Your task to perform on an android device: Check the weather Image 0: 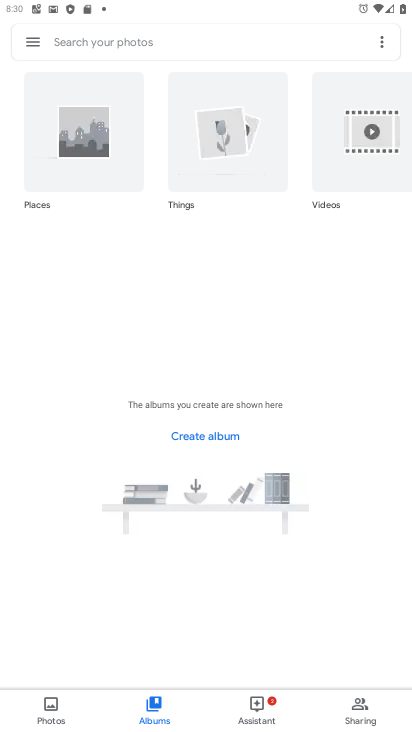
Step 0: press home button
Your task to perform on an android device: Check the weather Image 1: 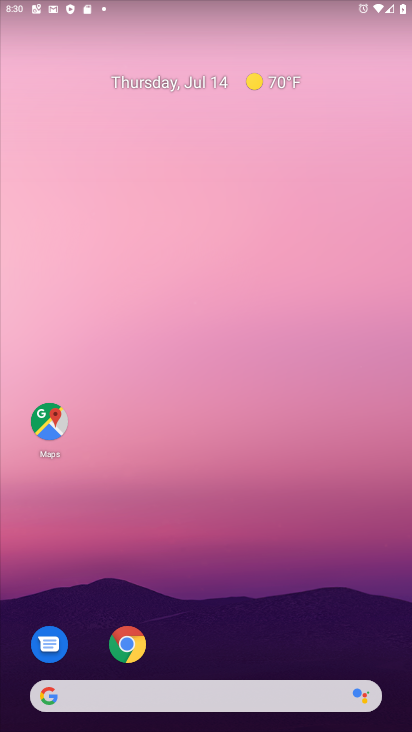
Step 1: drag from (231, 644) to (300, 276)
Your task to perform on an android device: Check the weather Image 2: 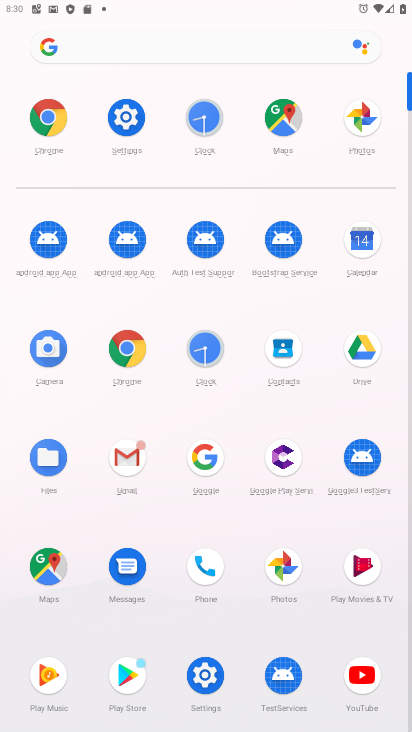
Step 2: click (29, 91)
Your task to perform on an android device: Check the weather Image 3: 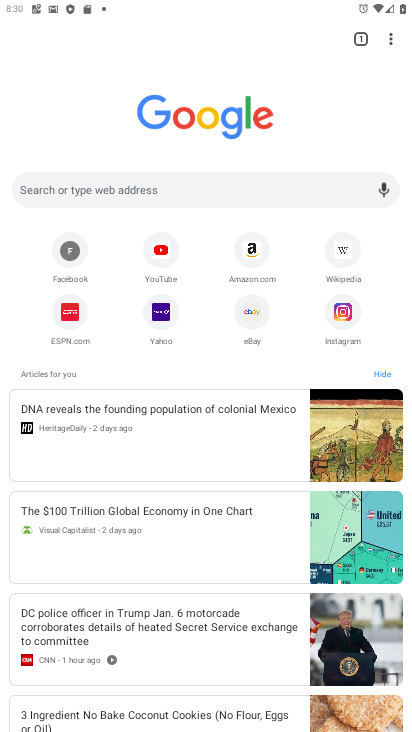
Step 3: click (58, 119)
Your task to perform on an android device: Check the weather Image 4: 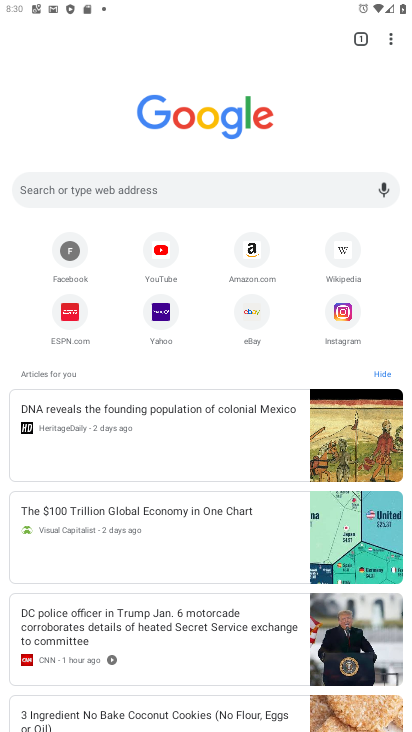
Step 4: click (119, 181)
Your task to perform on an android device: Check the weather Image 5: 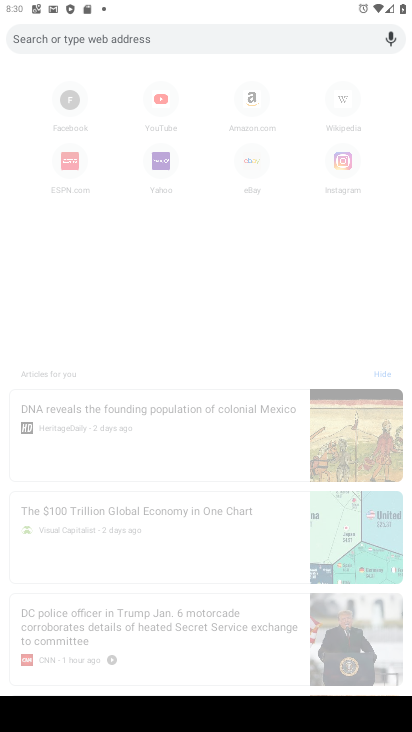
Step 5: type "Check the weather "
Your task to perform on an android device: Check the weather Image 6: 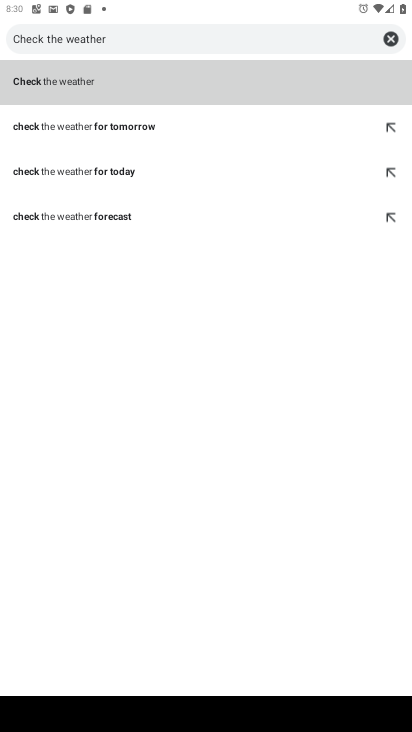
Step 6: click (57, 74)
Your task to perform on an android device: Check the weather Image 7: 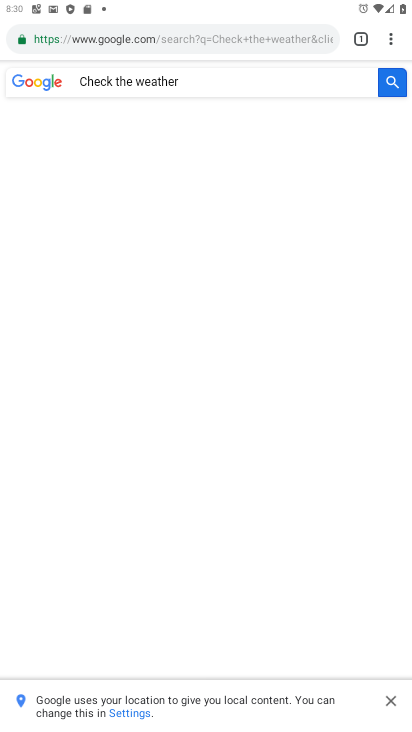
Step 7: task complete